Your task to perform on an android device: Open Google Chrome Image 0: 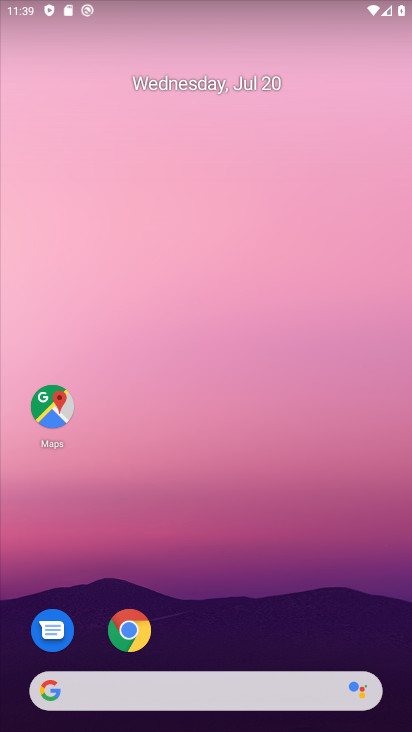
Step 0: drag from (191, 615) to (169, 109)
Your task to perform on an android device: Open Google Chrome Image 1: 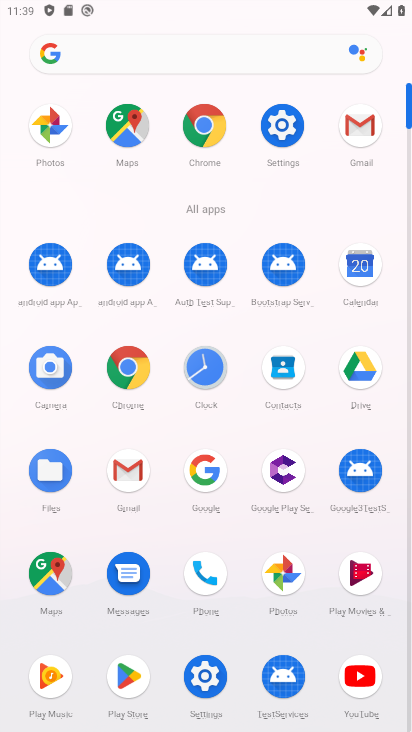
Step 1: click (135, 366)
Your task to perform on an android device: Open Google Chrome Image 2: 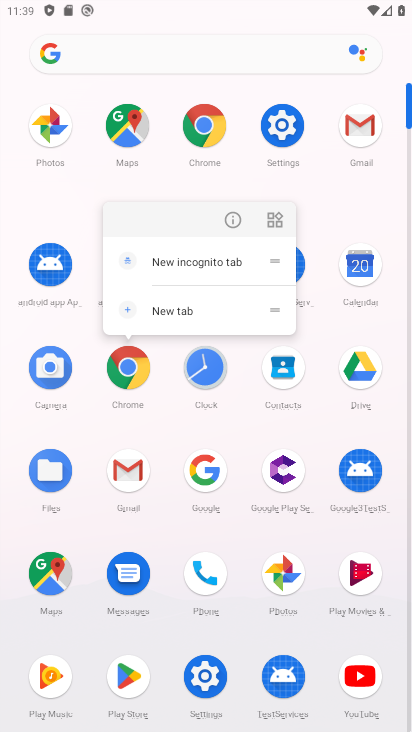
Step 2: click (239, 220)
Your task to perform on an android device: Open Google Chrome Image 3: 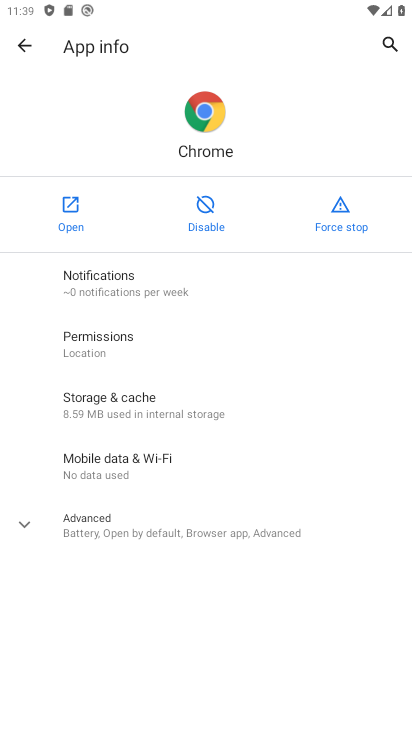
Step 3: click (62, 221)
Your task to perform on an android device: Open Google Chrome Image 4: 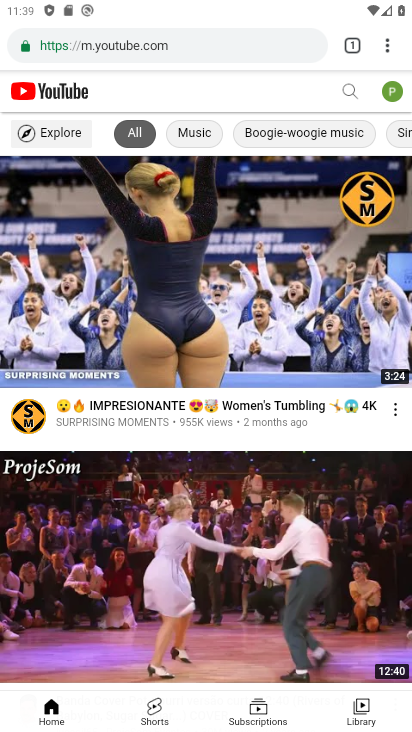
Step 4: task complete